Your task to perform on an android device: turn on javascript in the chrome app Image 0: 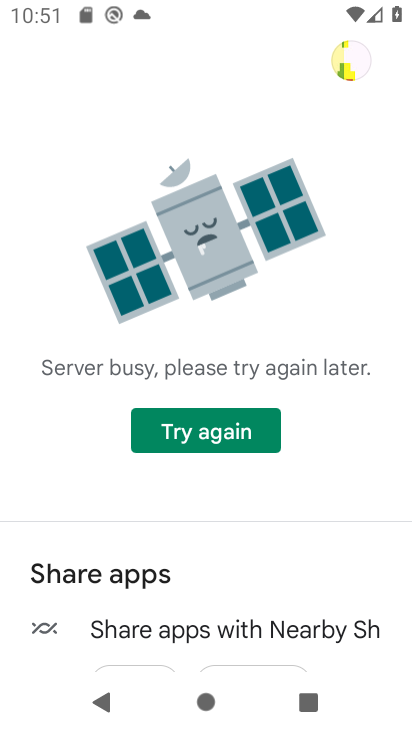
Step 0: press home button
Your task to perform on an android device: turn on javascript in the chrome app Image 1: 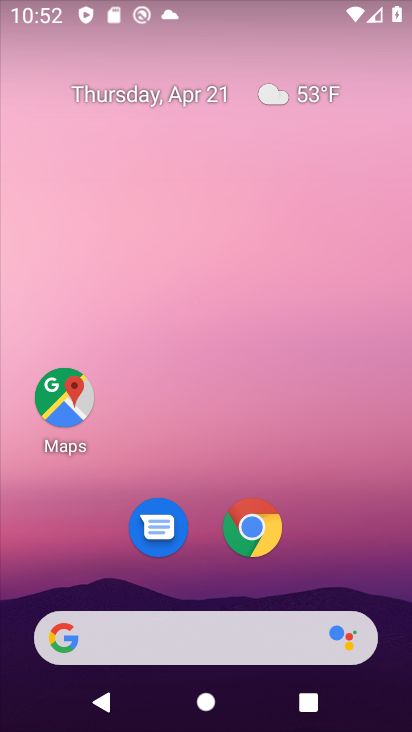
Step 1: drag from (327, 532) to (331, 121)
Your task to perform on an android device: turn on javascript in the chrome app Image 2: 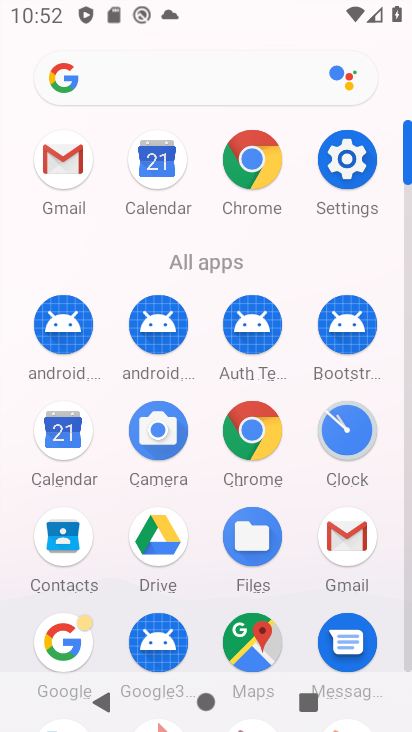
Step 2: click (250, 156)
Your task to perform on an android device: turn on javascript in the chrome app Image 3: 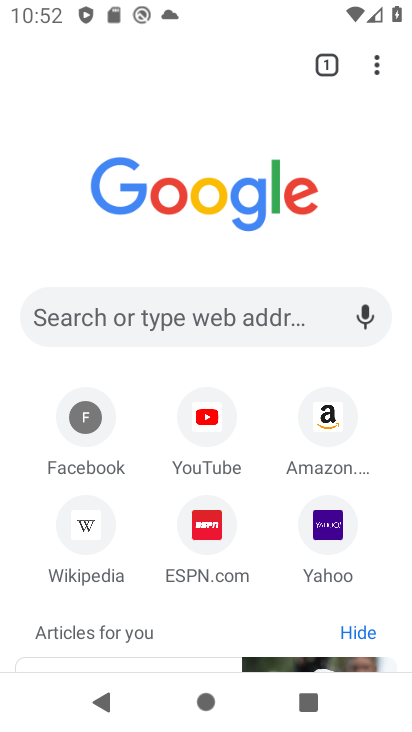
Step 3: click (377, 70)
Your task to perform on an android device: turn on javascript in the chrome app Image 4: 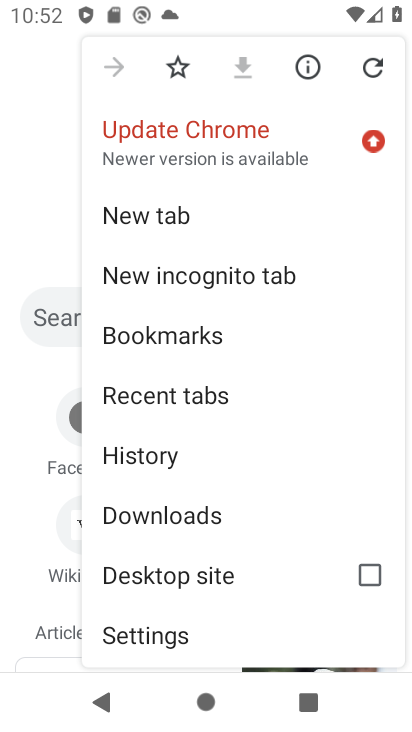
Step 4: drag from (289, 512) to (285, 361)
Your task to perform on an android device: turn on javascript in the chrome app Image 5: 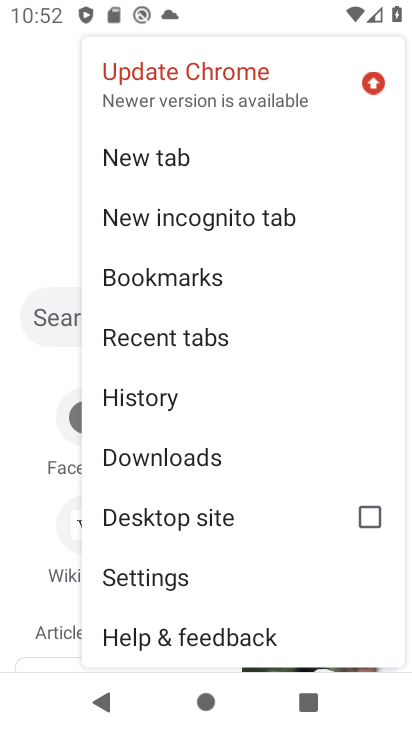
Step 5: click (159, 573)
Your task to perform on an android device: turn on javascript in the chrome app Image 6: 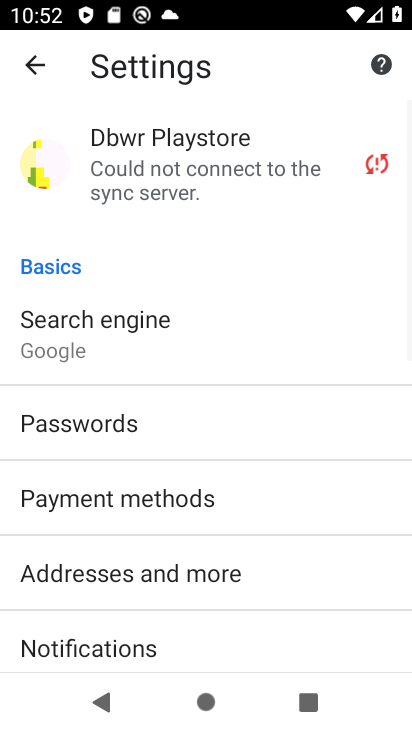
Step 6: drag from (325, 583) to (322, 389)
Your task to perform on an android device: turn on javascript in the chrome app Image 7: 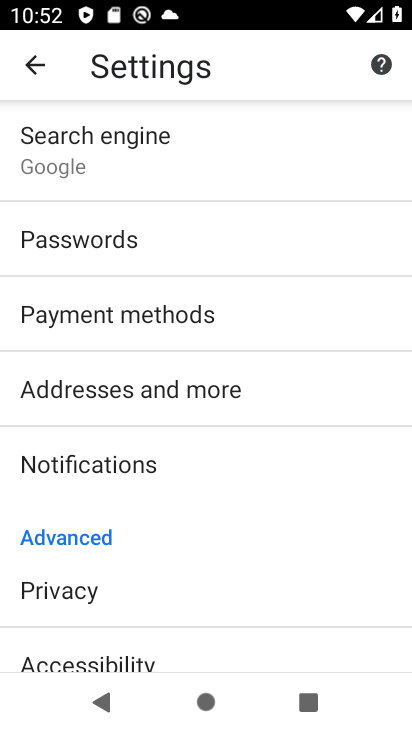
Step 7: drag from (298, 555) to (296, 354)
Your task to perform on an android device: turn on javascript in the chrome app Image 8: 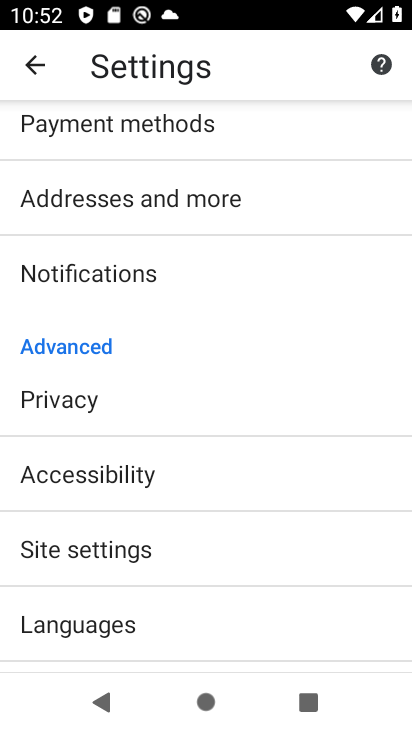
Step 8: drag from (296, 611) to (311, 406)
Your task to perform on an android device: turn on javascript in the chrome app Image 9: 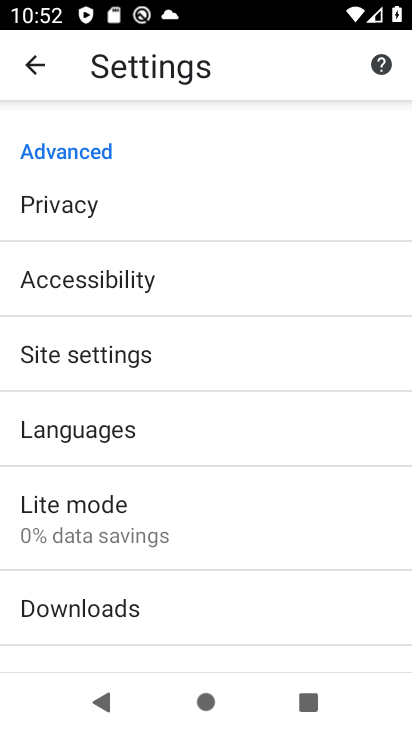
Step 9: drag from (309, 599) to (314, 446)
Your task to perform on an android device: turn on javascript in the chrome app Image 10: 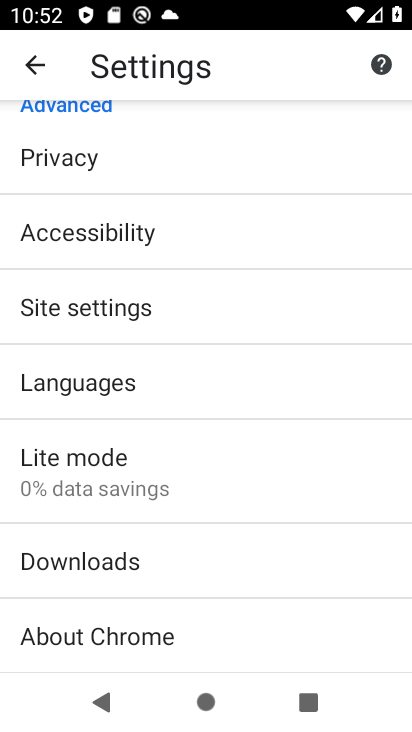
Step 10: click (281, 306)
Your task to perform on an android device: turn on javascript in the chrome app Image 11: 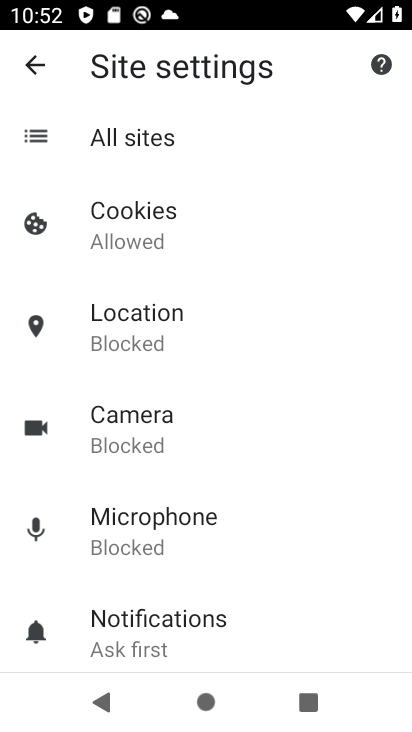
Step 11: drag from (311, 584) to (322, 403)
Your task to perform on an android device: turn on javascript in the chrome app Image 12: 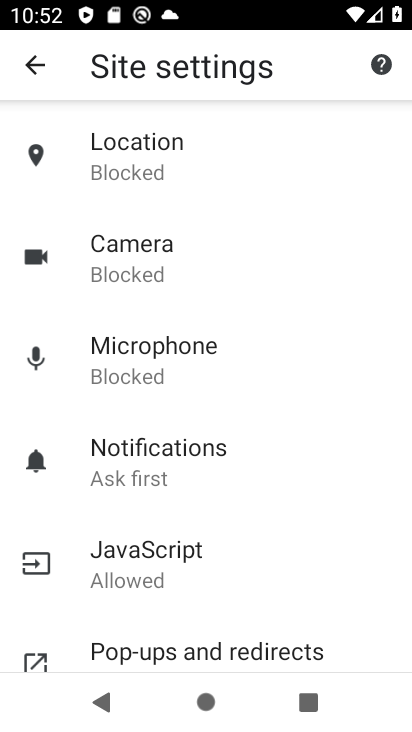
Step 12: drag from (331, 582) to (334, 375)
Your task to perform on an android device: turn on javascript in the chrome app Image 13: 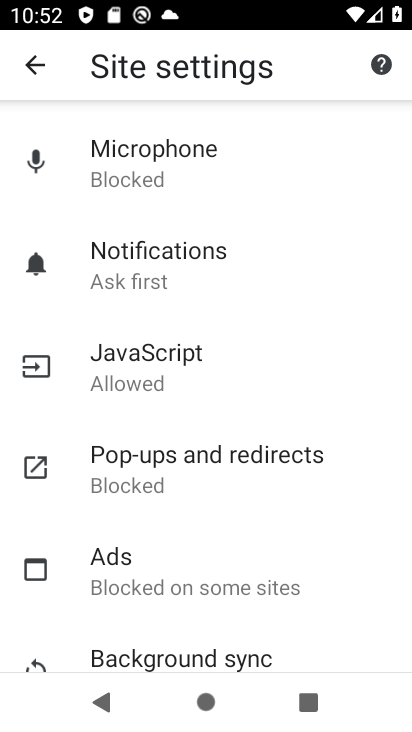
Step 13: drag from (361, 579) to (358, 473)
Your task to perform on an android device: turn on javascript in the chrome app Image 14: 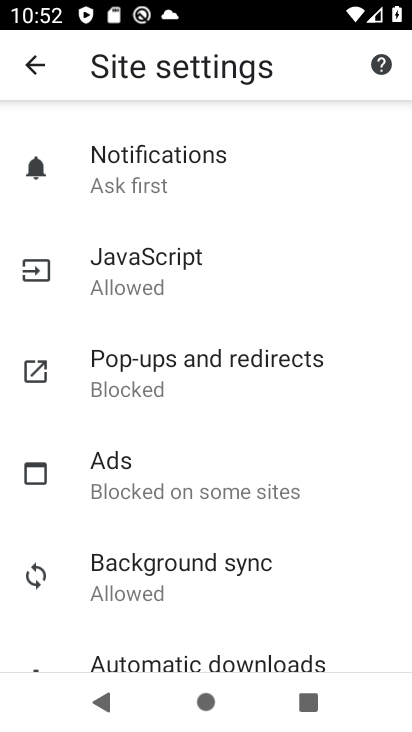
Step 14: click (154, 266)
Your task to perform on an android device: turn on javascript in the chrome app Image 15: 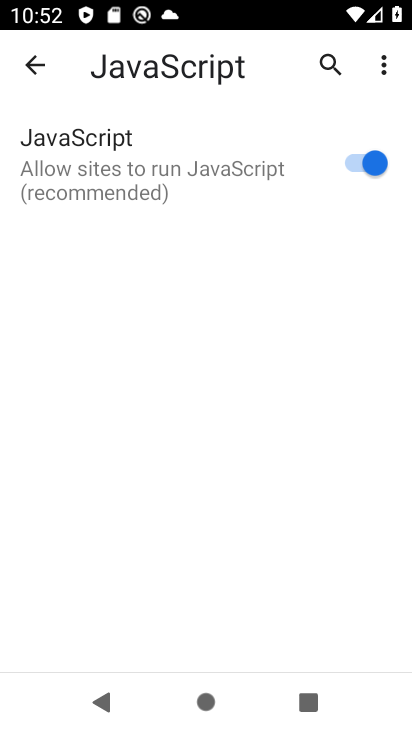
Step 15: task complete